Your task to perform on an android device: Go to notification settings Image 0: 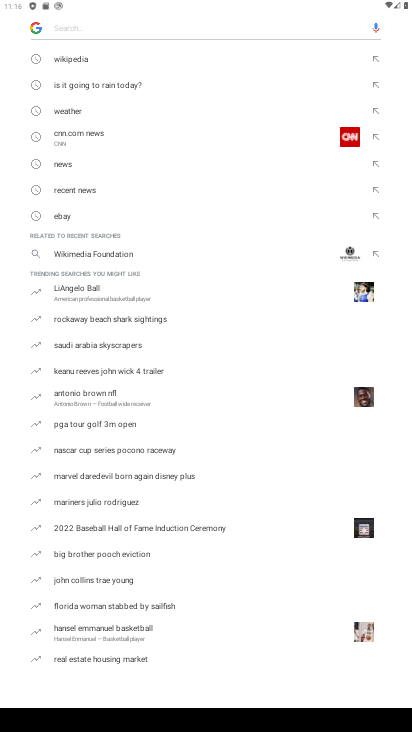
Step 0: press home button
Your task to perform on an android device: Go to notification settings Image 1: 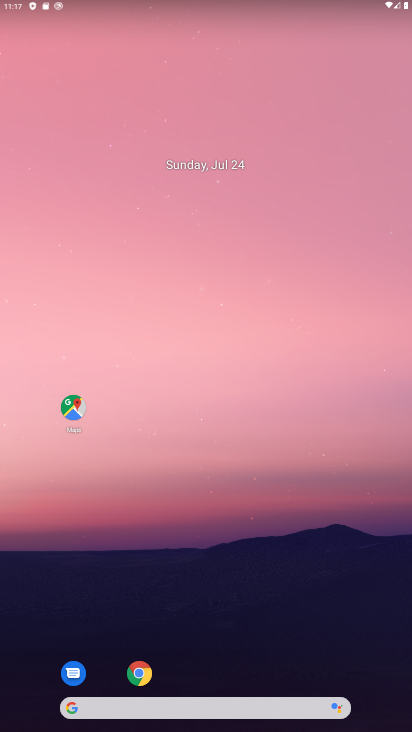
Step 1: drag from (278, 646) to (265, 0)
Your task to perform on an android device: Go to notification settings Image 2: 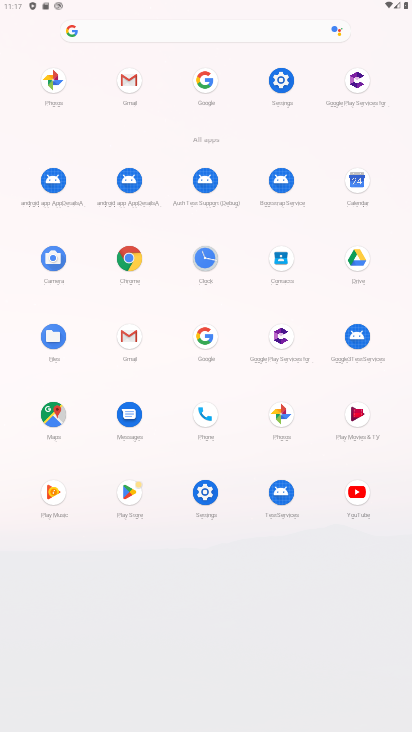
Step 2: click (281, 84)
Your task to perform on an android device: Go to notification settings Image 3: 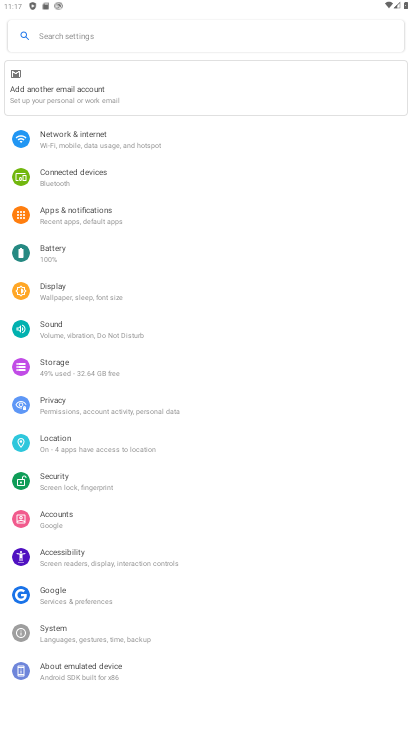
Step 3: click (64, 214)
Your task to perform on an android device: Go to notification settings Image 4: 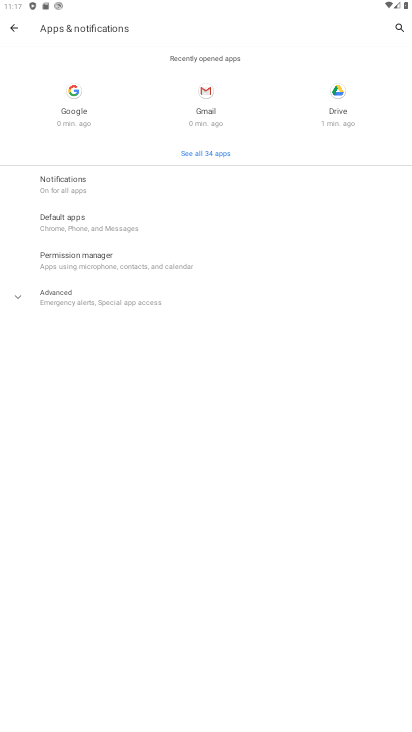
Step 4: click (63, 188)
Your task to perform on an android device: Go to notification settings Image 5: 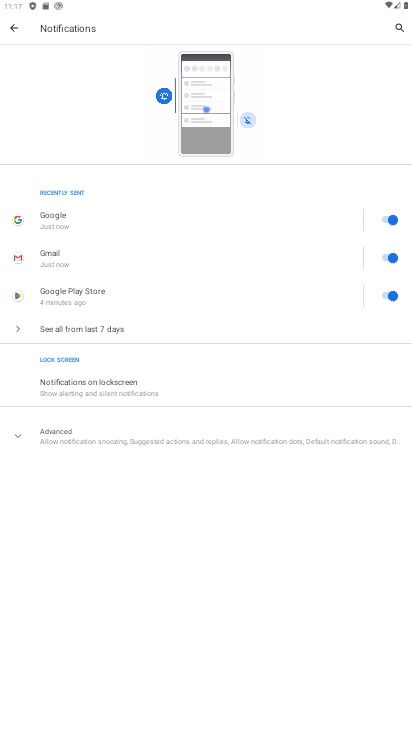
Step 5: task complete